Your task to perform on an android device: turn on showing notifications on the lock screen Image 0: 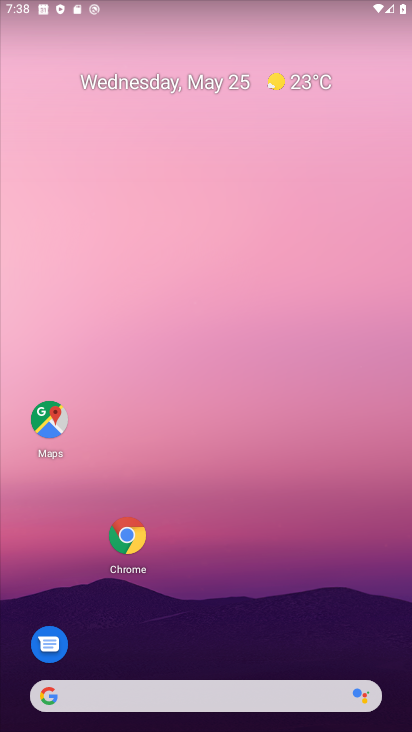
Step 0: drag from (198, 588) to (178, 262)
Your task to perform on an android device: turn on showing notifications on the lock screen Image 1: 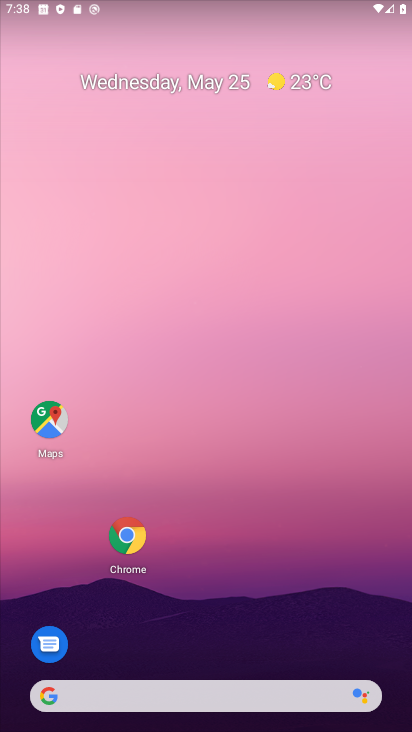
Step 1: click (200, 210)
Your task to perform on an android device: turn on showing notifications on the lock screen Image 2: 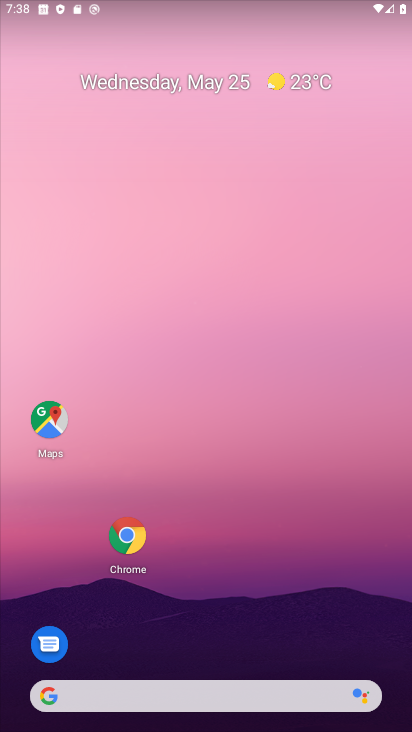
Step 2: drag from (190, 695) to (211, 46)
Your task to perform on an android device: turn on showing notifications on the lock screen Image 3: 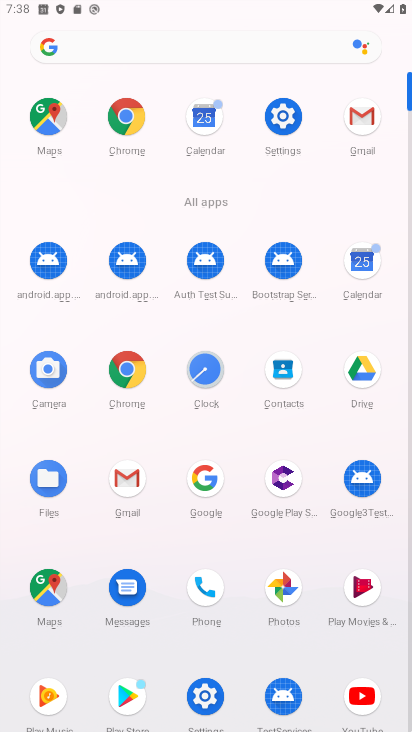
Step 3: click (267, 111)
Your task to perform on an android device: turn on showing notifications on the lock screen Image 4: 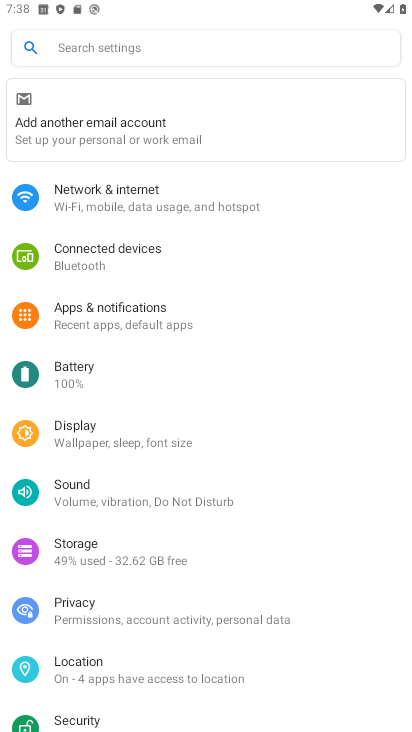
Step 4: click (147, 324)
Your task to perform on an android device: turn on showing notifications on the lock screen Image 5: 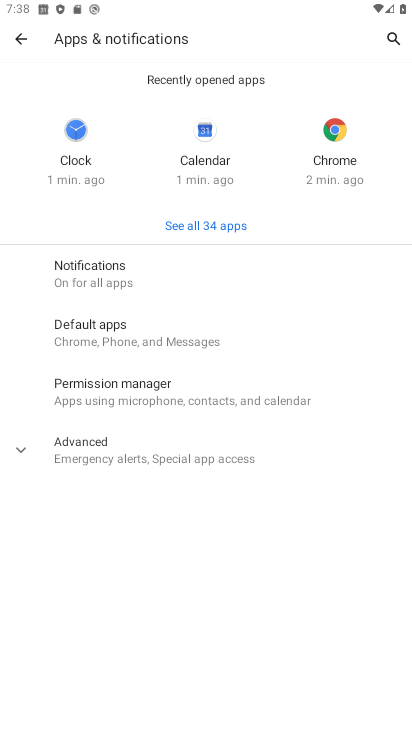
Step 5: click (99, 287)
Your task to perform on an android device: turn on showing notifications on the lock screen Image 6: 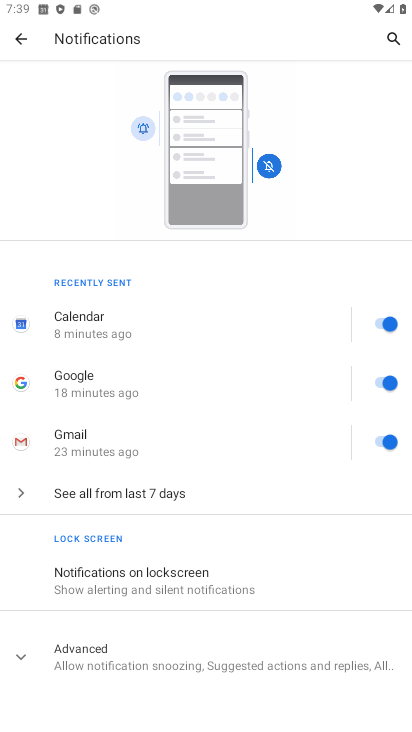
Step 6: click (144, 580)
Your task to perform on an android device: turn on showing notifications on the lock screen Image 7: 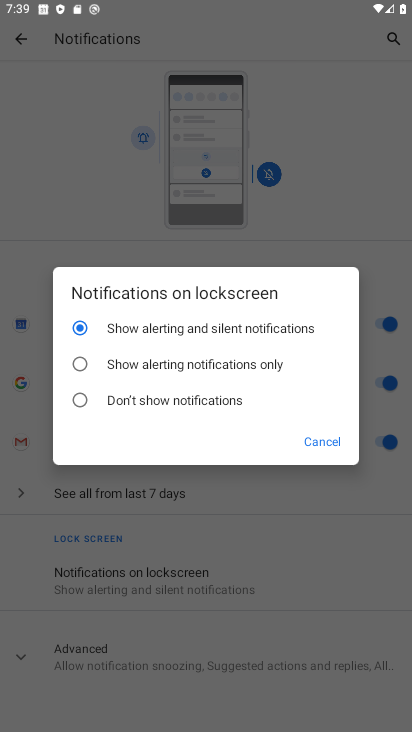
Step 7: click (152, 332)
Your task to perform on an android device: turn on showing notifications on the lock screen Image 8: 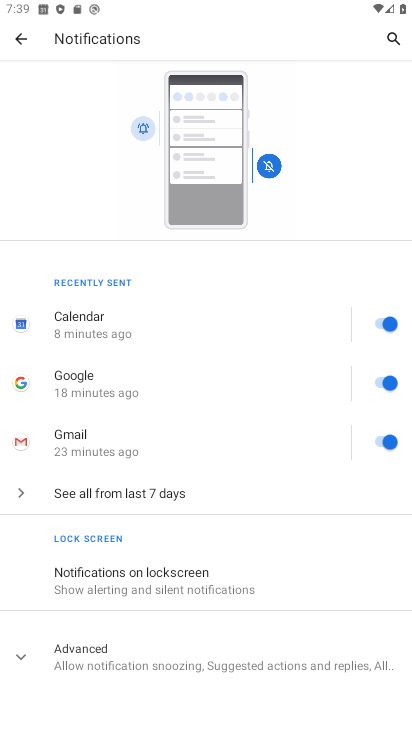
Step 8: task complete